Your task to perform on an android device: Search for vegetarian restaurants on Maps Image 0: 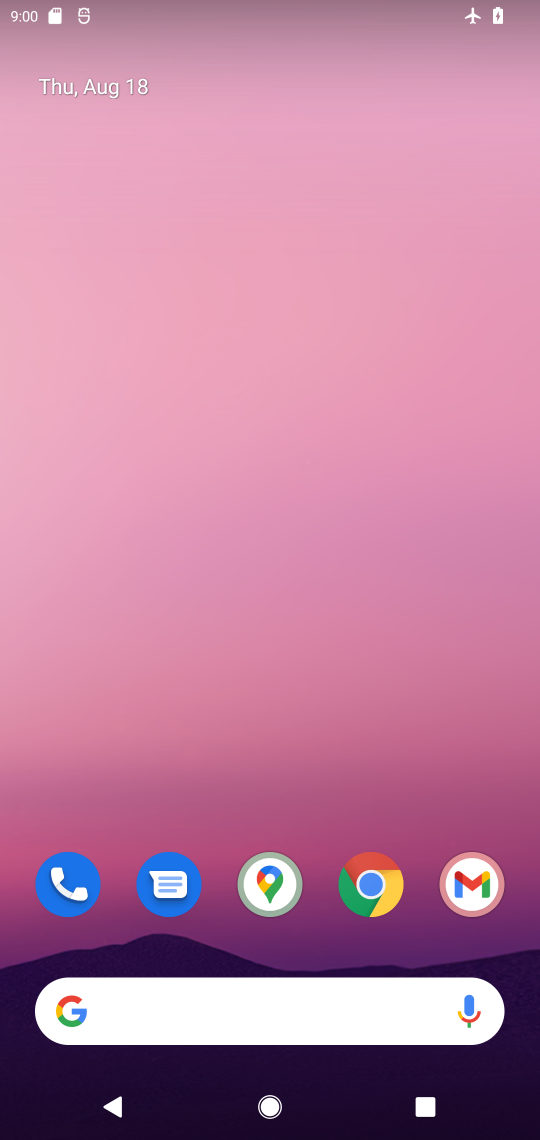
Step 0: click (270, 896)
Your task to perform on an android device: Search for vegetarian restaurants on Maps Image 1: 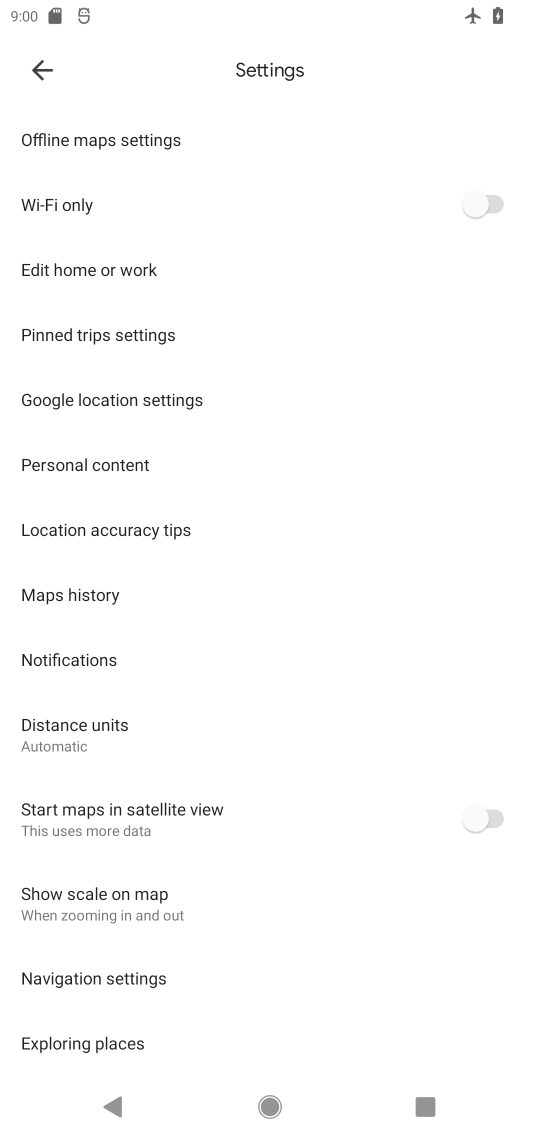
Step 1: click (48, 77)
Your task to perform on an android device: Search for vegetarian restaurants on Maps Image 2: 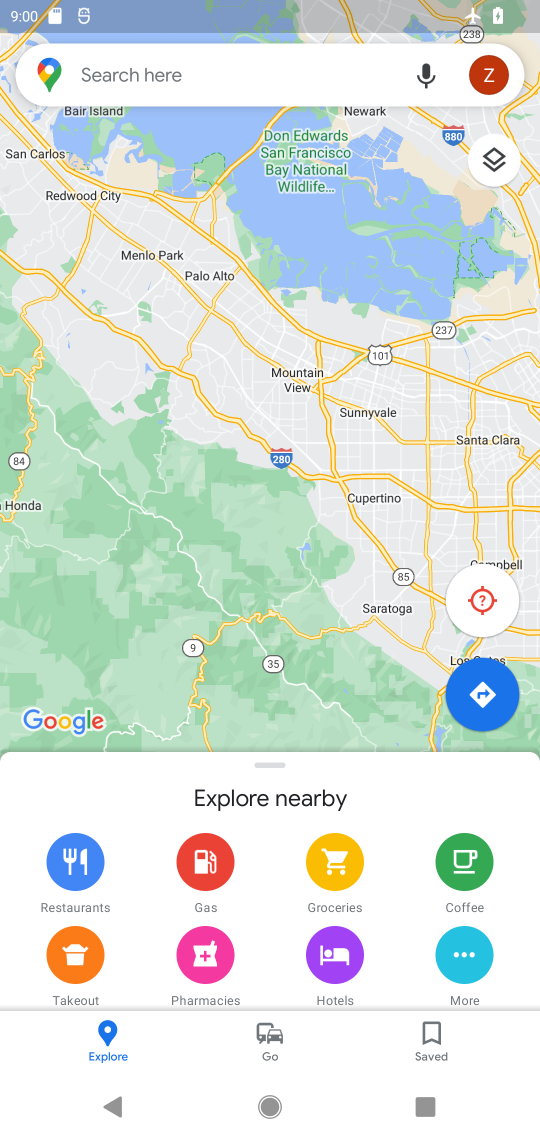
Step 2: click (157, 64)
Your task to perform on an android device: Search for vegetarian restaurants on Maps Image 3: 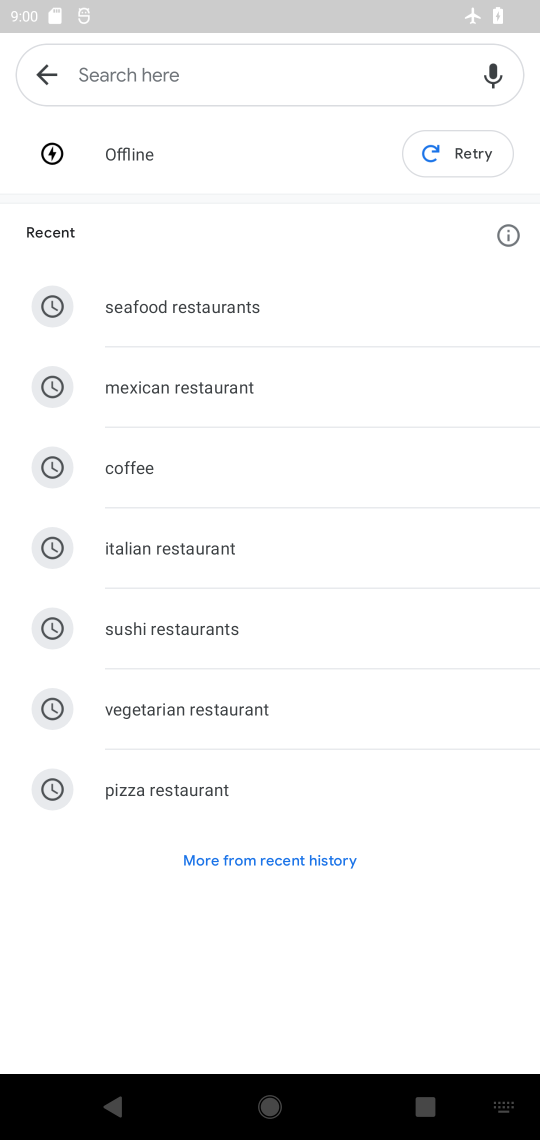
Step 3: click (266, 731)
Your task to perform on an android device: Search for vegetarian restaurants on Maps Image 4: 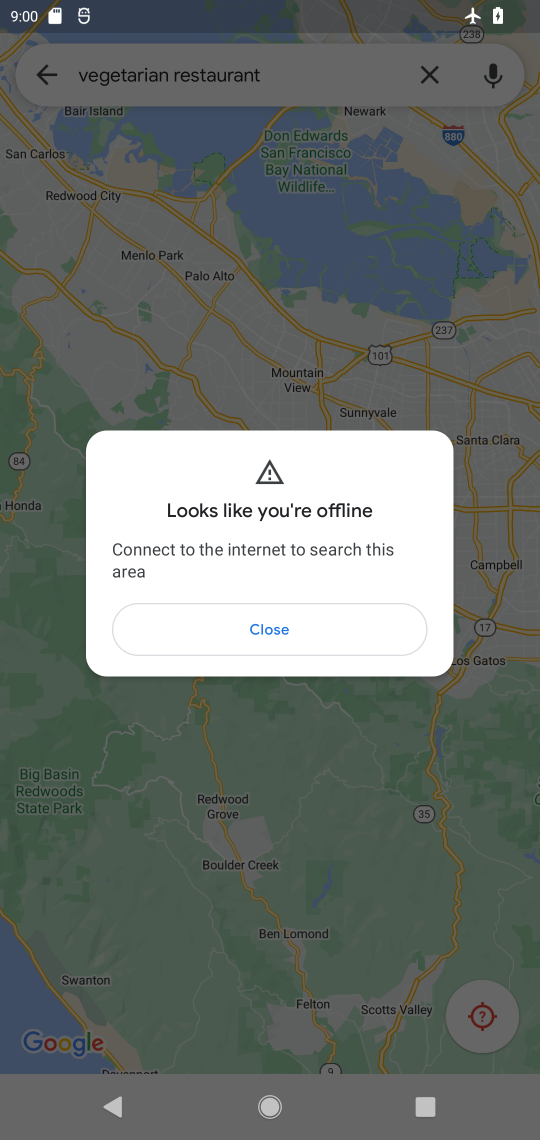
Step 4: click (343, 623)
Your task to perform on an android device: Search for vegetarian restaurants on Maps Image 5: 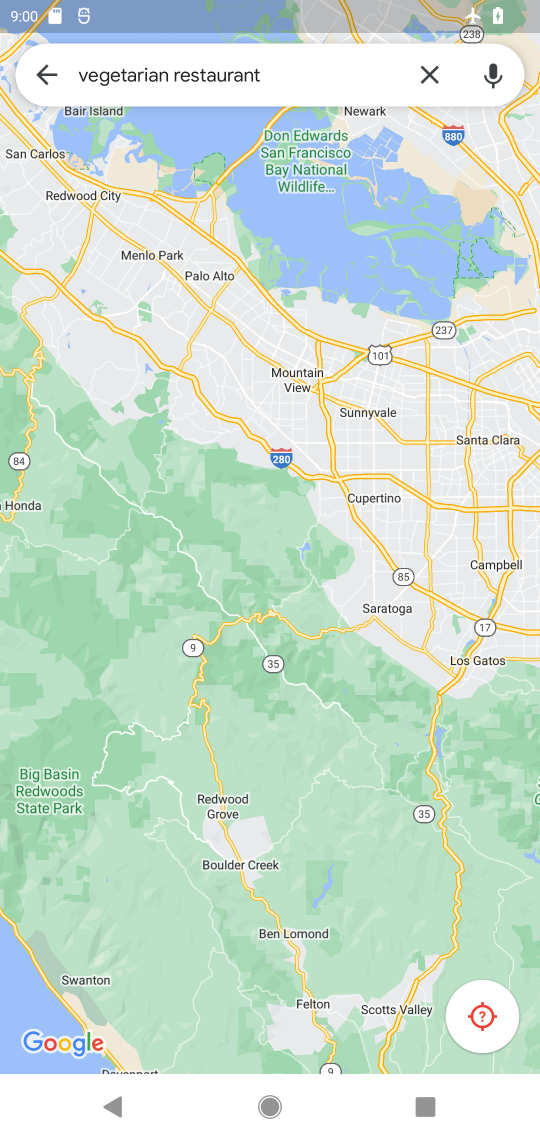
Step 5: drag from (275, 12) to (330, 802)
Your task to perform on an android device: Search for vegetarian restaurants on Maps Image 6: 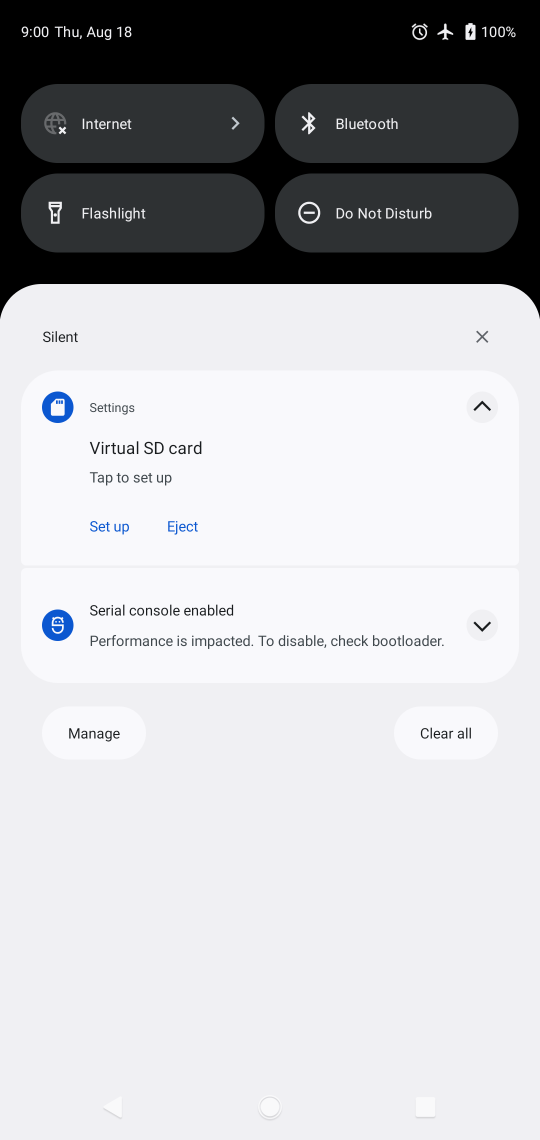
Step 6: drag from (293, 191) to (332, 875)
Your task to perform on an android device: Search for vegetarian restaurants on Maps Image 7: 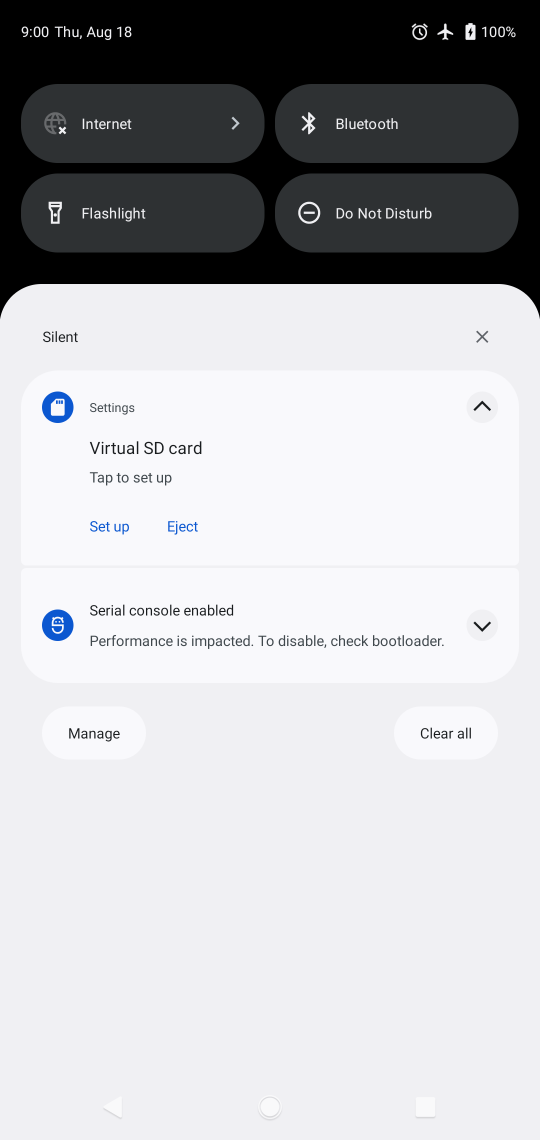
Step 7: click (304, 842)
Your task to perform on an android device: Search for vegetarian restaurants on Maps Image 8: 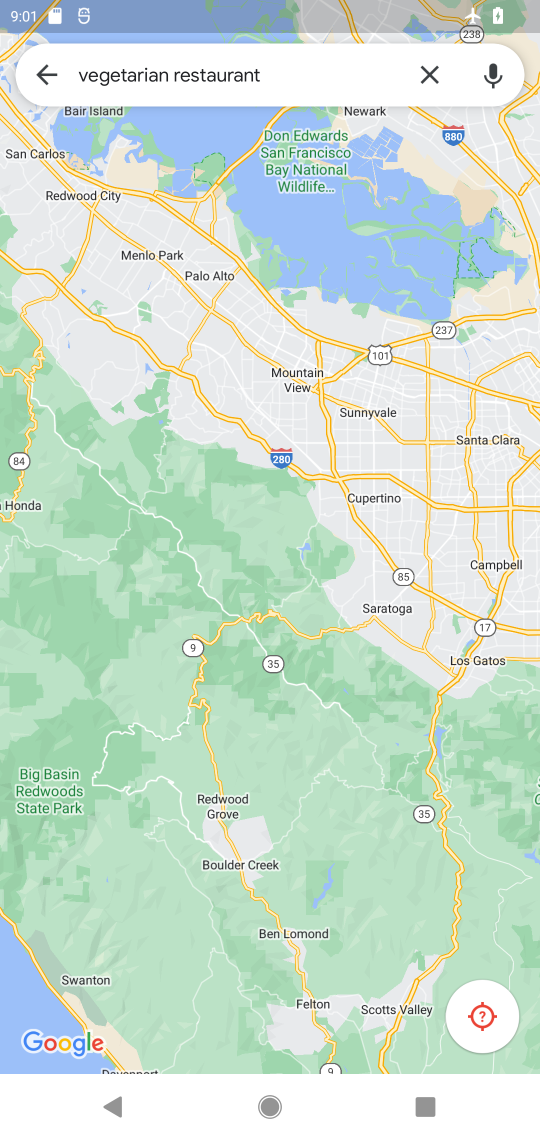
Step 8: task complete